Your task to perform on an android device: Search for flights from Mexico city to Sydney Image 0: 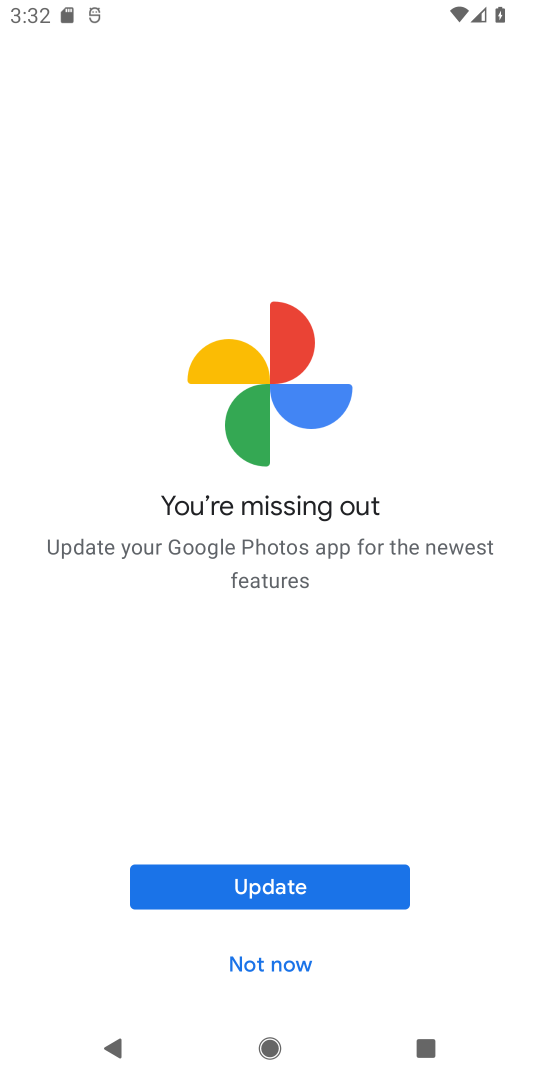
Step 0: press home button
Your task to perform on an android device: Search for flights from Mexico city to Sydney Image 1: 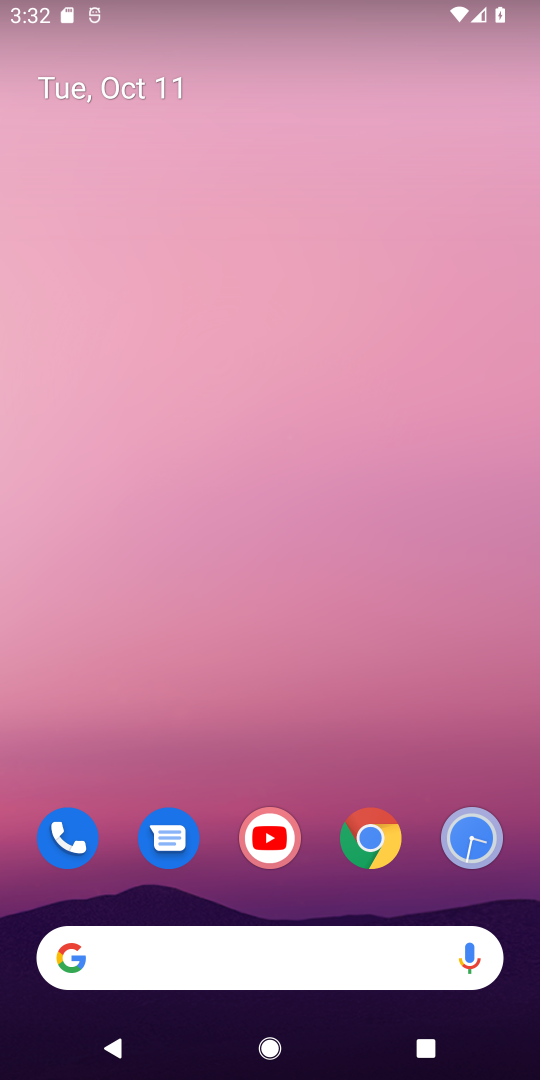
Step 1: click (225, 946)
Your task to perform on an android device: Search for flights from Mexico city to Sydney Image 2: 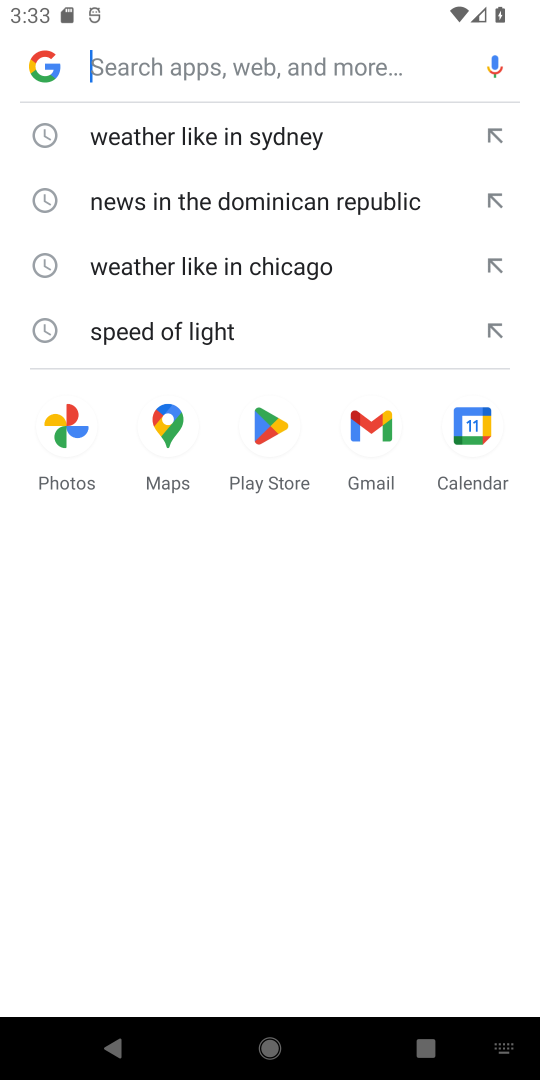
Step 2: type "flights from Mexico city to Sydney"
Your task to perform on an android device: Search for flights from Mexico city to Sydney Image 3: 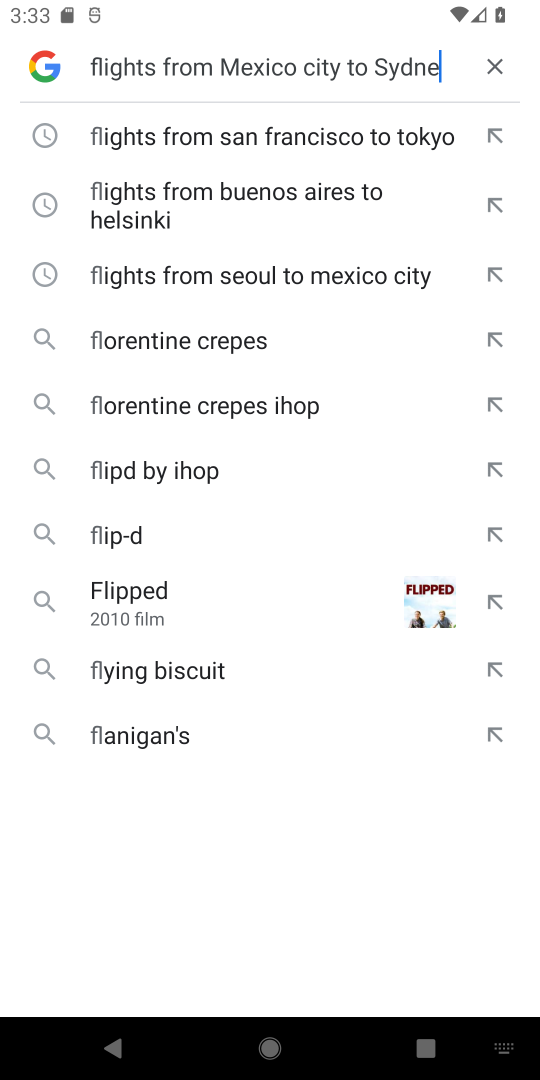
Step 3: type ""
Your task to perform on an android device: Search for flights from Mexico city to Sydney Image 4: 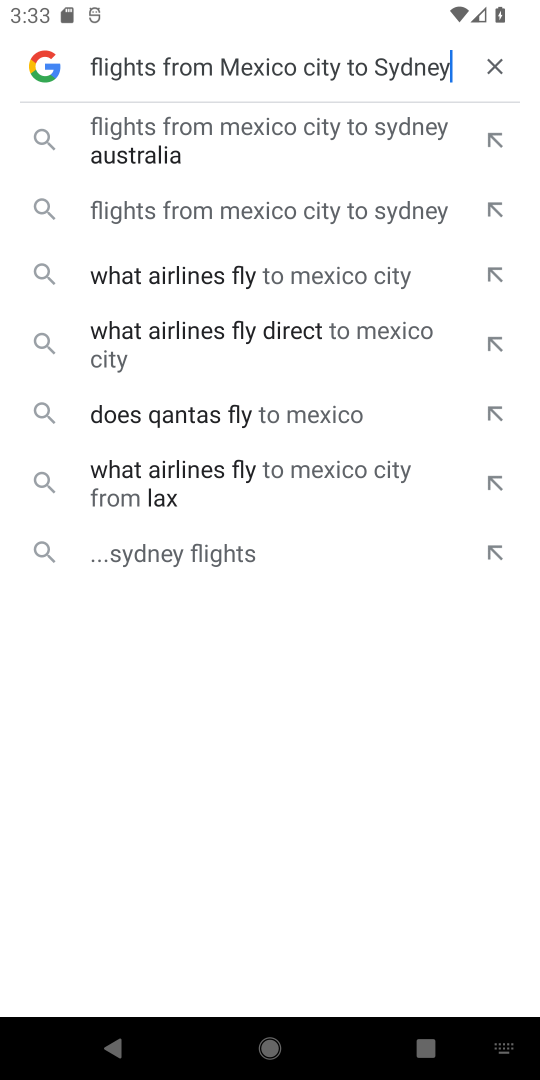
Step 4: click (243, 159)
Your task to perform on an android device: Search for flights from Mexico city to Sydney Image 5: 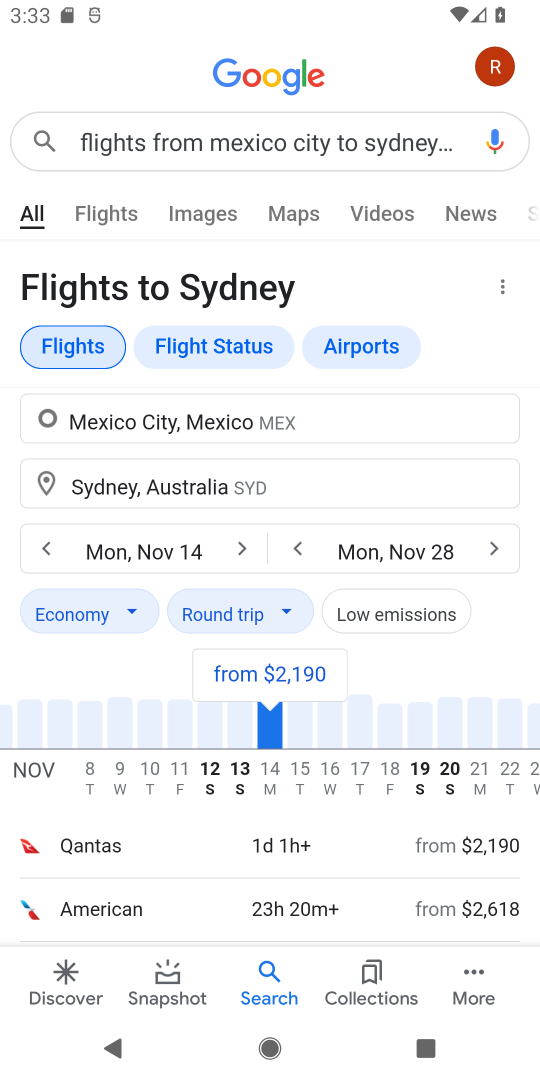
Step 5: task complete